Your task to perform on an android device: Open Yahoo.com Image 0: 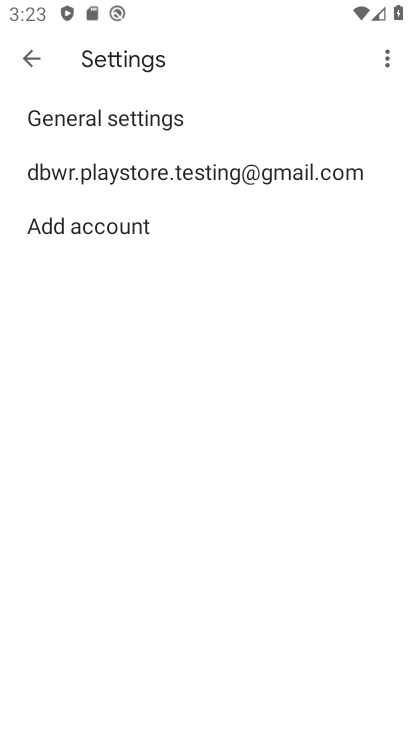
Step 0: press home button
Your task to perform on an android device: Open Yahoo.com Image 1: 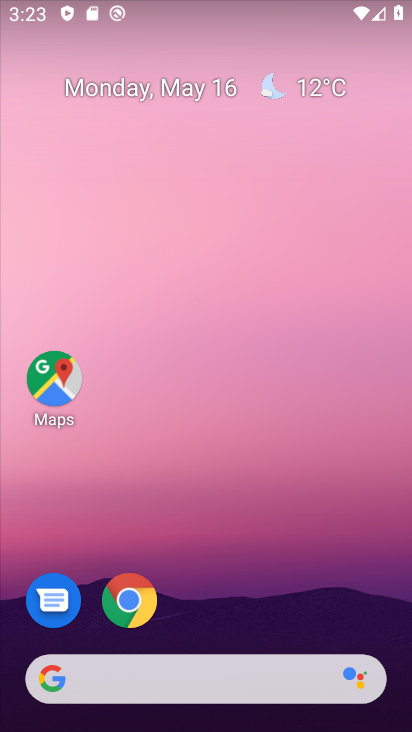
Step 1: click (145, 601)
Your task to perform on an android device: Open Yahoo.com Image 2: 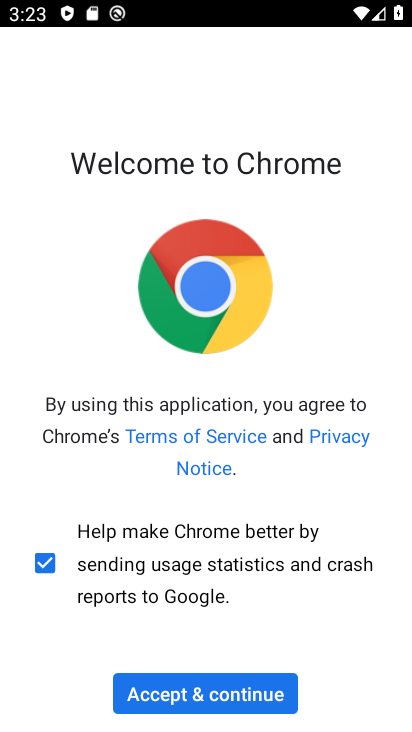
Step 2: click (188, 684)
Your task to perform on an android device: Open Yahoo.com Image 3: 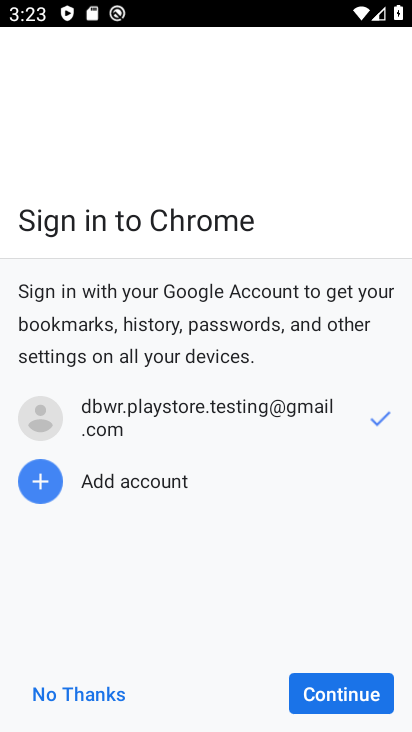
Step 3: click (349, 689)
Your task to perform on an android device: Open Yahoo.com Image 4: 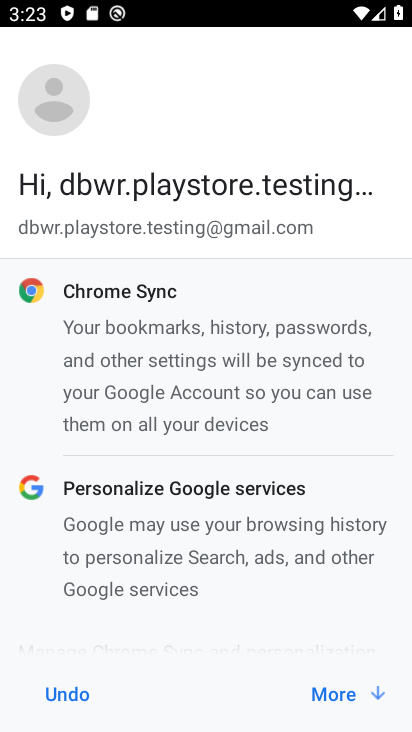
Step 4: click (349, 690)
Your task to perform on an android device: Open Yahoo.com Image 5: 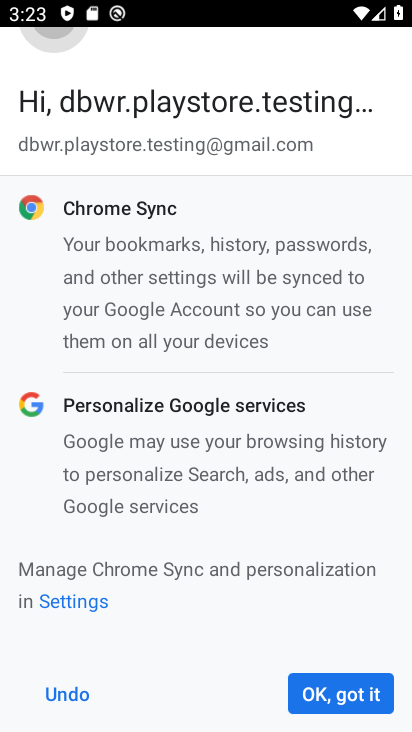
Step 5: click (349, 690)
Your task to perform on an android device: Open Yahoo.com Image 6: 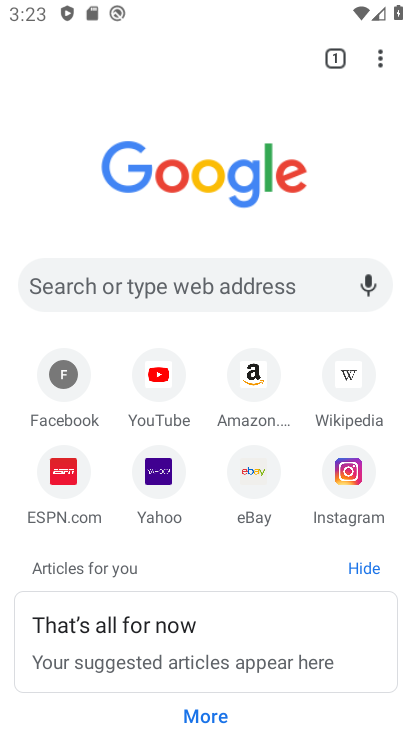
Step 6: click (170, 475)
Your task to perform on an android device: Open Yahoo.com Image 7: 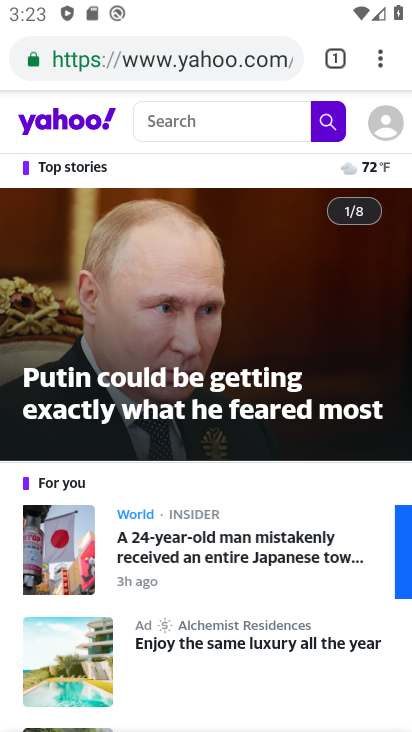
Step 7: task complete